Your task to perform on an android device: Go to Android settings Image 0: 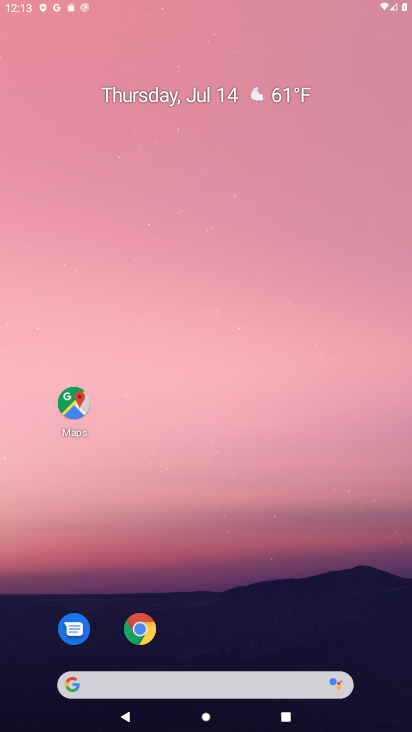
Step 0: click (222, 93)
Your task to perform on an android device: Go to Android settings Image 1: 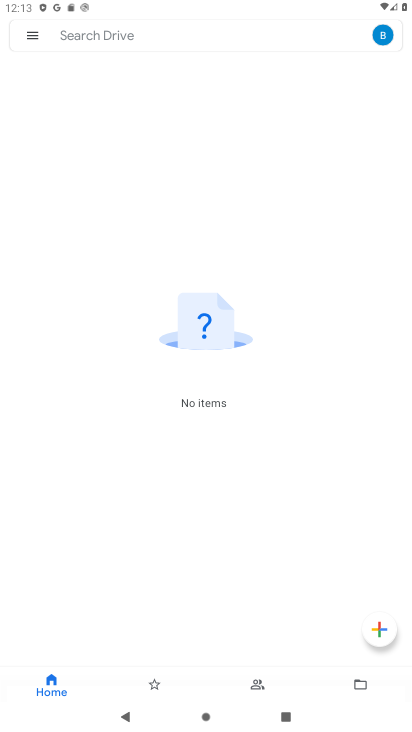
Step 1: press home button
Your task to perform on an android device: Go to Android settings Image 2: 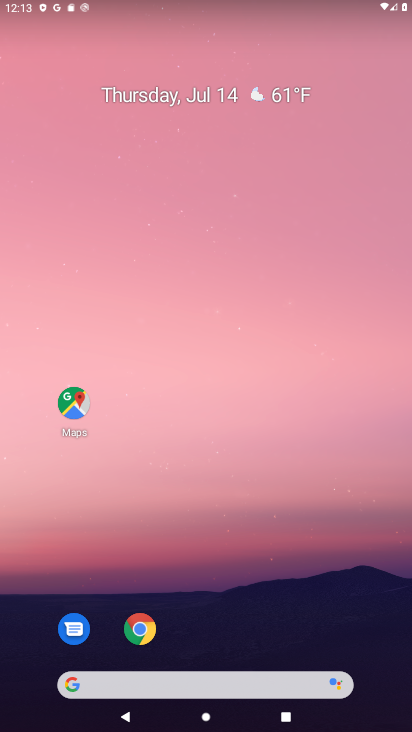
Step 2: drag from (205, 640) to (249, 23)
Your task to perform on an android device: Go to Android settings Image 3: 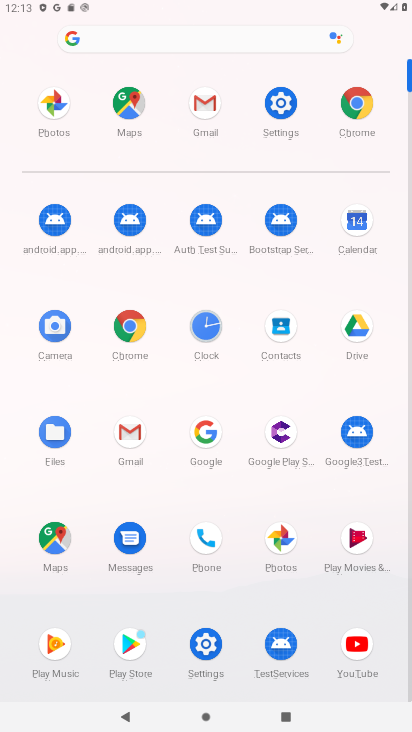
Step 3: click (292, 114)
Your task to perform on an android device: Go to Android settings Image 4: 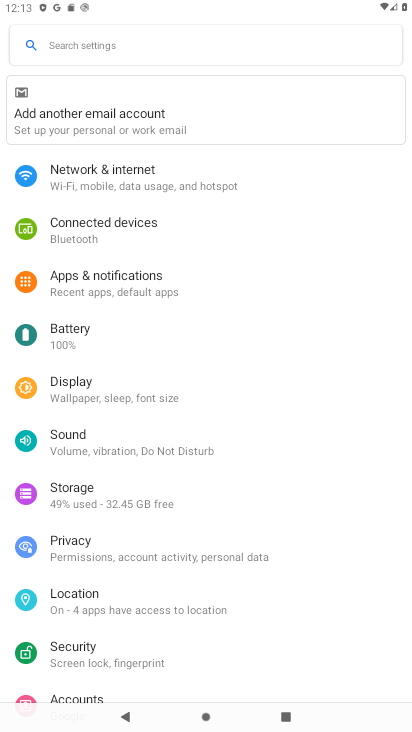
Step 4: task complete